Your task to perform on an android device: turn on wifi Image 0: 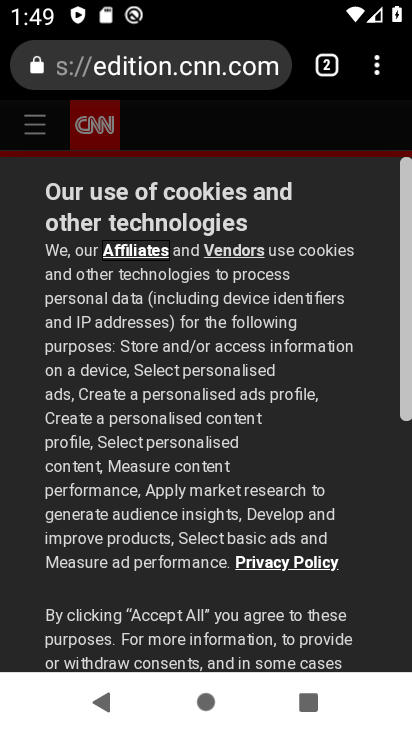
Step 0: drag from (60, 12) to (74, 731)
Your task to perform on an android device: turn on wifi Image 1: 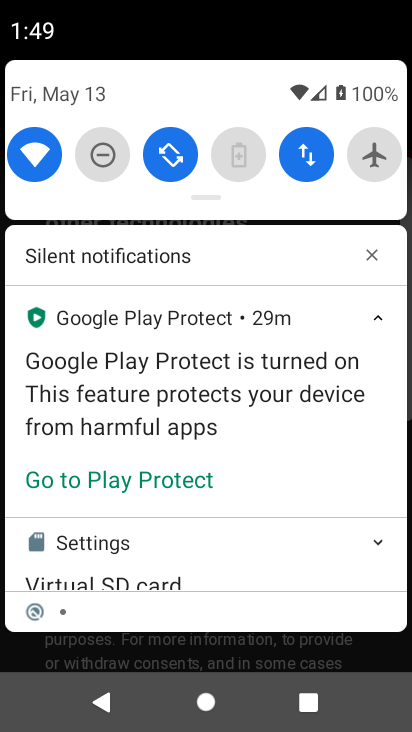
Step 1: task complete